Your task to perform on an android device: Open settings Image 0: 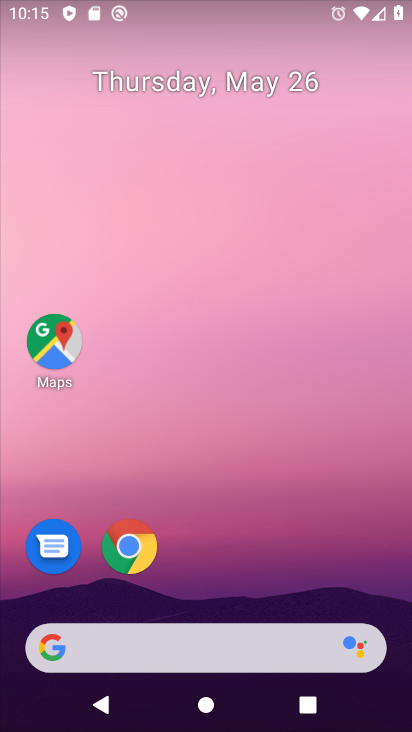
Step 0: drag from (233, 582) to (201, 86)
Your task to perform on an android device: Open settings Image 1: 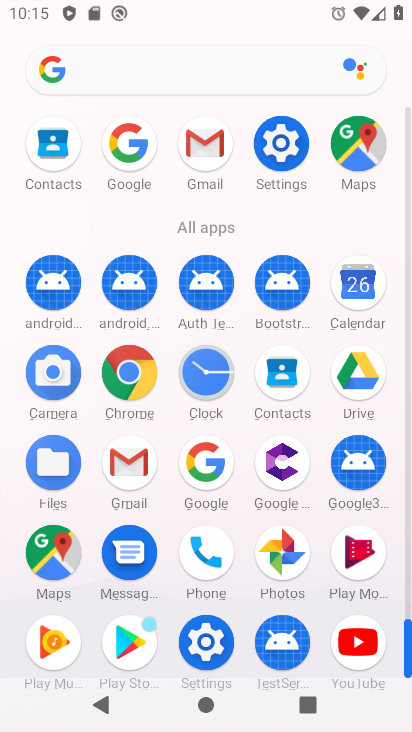
Step 1: click (278, 144)
Your task to perform on an android device: Open settings Image 2: 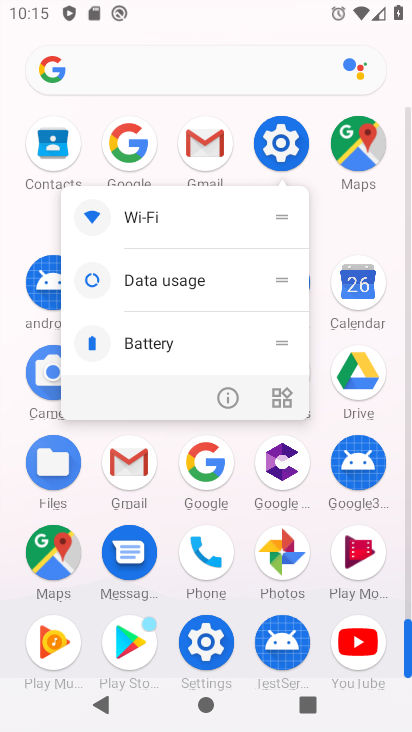
Step 2: click (283, 146)
Your task to perform on an android device: Open settings Image 3: 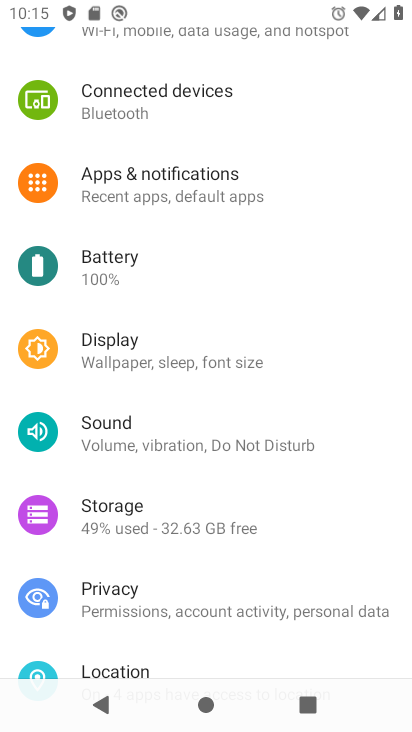
Step 3: task complete